Your task to perform on an android device: turn on airplane mode Image 0: 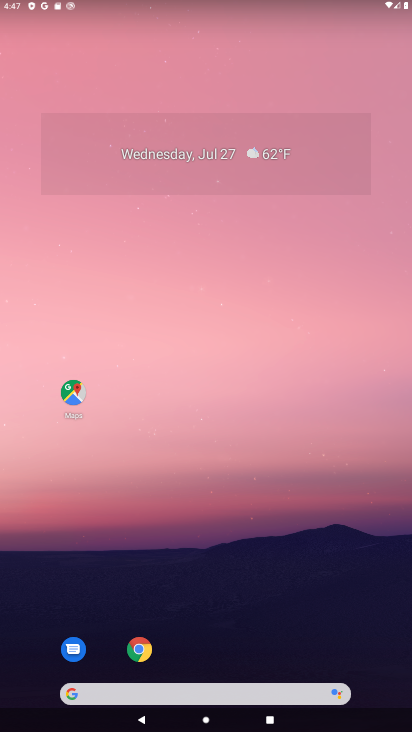
Step 0: click (340, 389)
Your task to perform on an android device: turn on airplane mode Image 1: 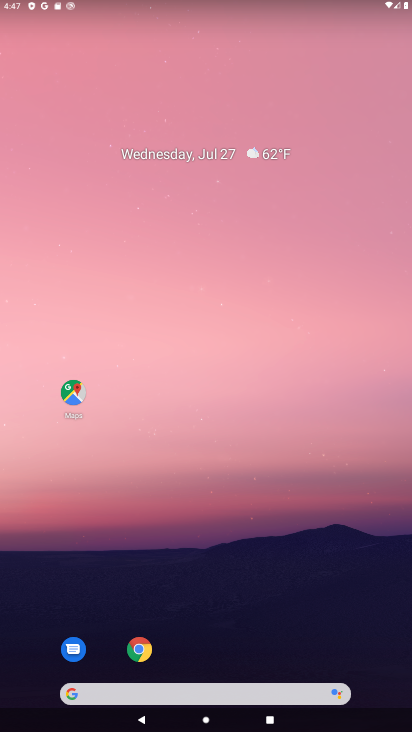
Step 1: drag from (310, 3) to (305, 418)
Your task to perform on an android device: turn on airplane mode Image 2: 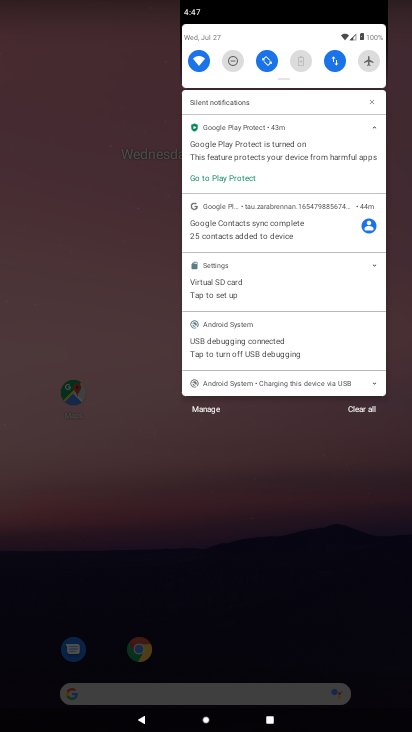
Step 2: click (359, 61)
Your task to perform on an android device: turn on airplane mode Image 3: 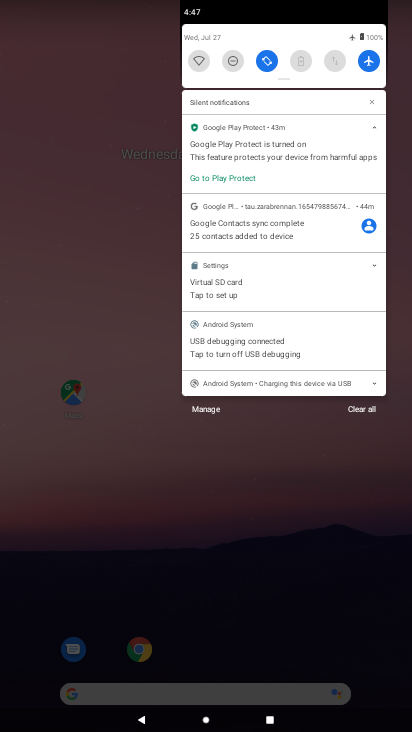
Step 3: task complete